Your task to perform on an android device: change notifications settings Image 0: 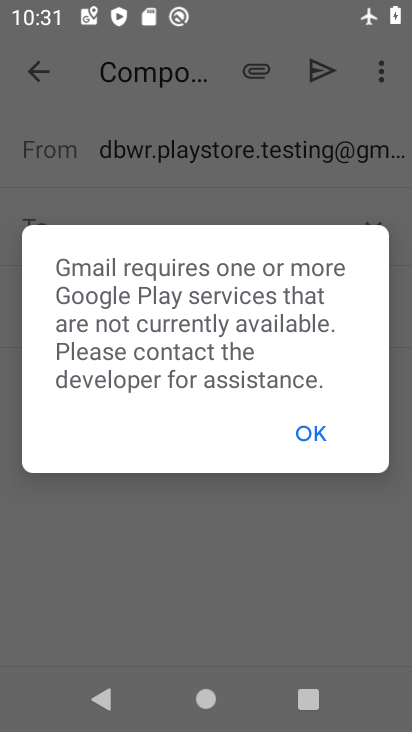
Step 0: press home button
Your task to perform on an android device: change notifications settings Image 1: 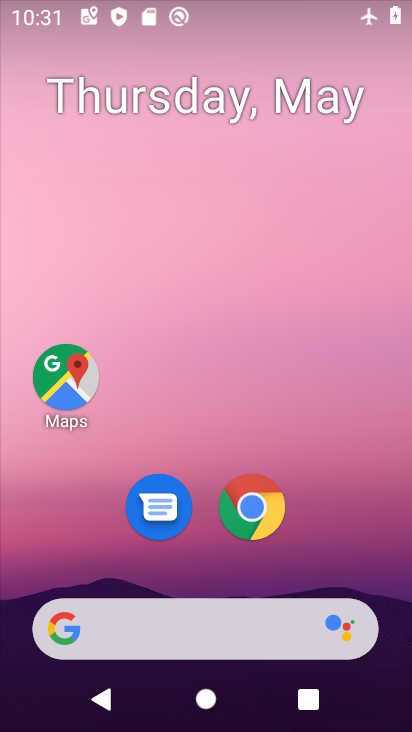
Step 1: drag from (288, 610) to (314, 19)
Your task to perform on an android device: change notifications settings Image 2: 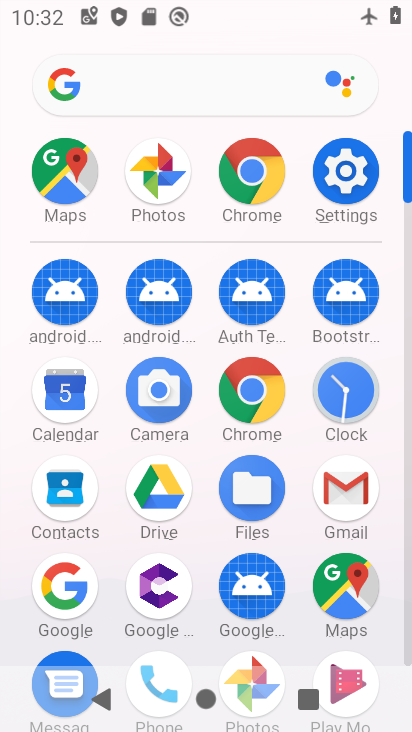
Step 2: click (355, 199)
Your task to perform on an android device: change notifications settings Image 3: 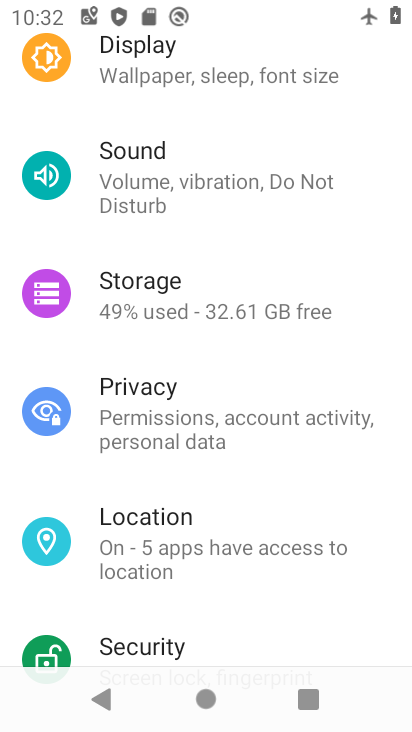
Step 3: drag from (243, 360) to (231, 709)
Your task to perform on an android device: change notifications settings Image 4: 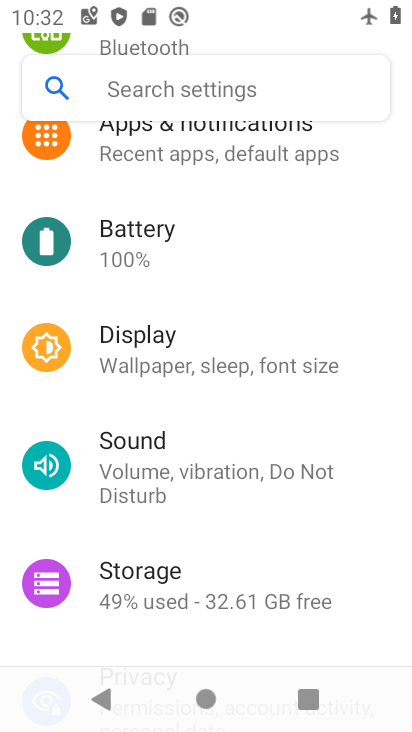
Step 4: drag from (222, 286) to (230, 567)
Your task to perform on an android device: change notifications settings Image 5: 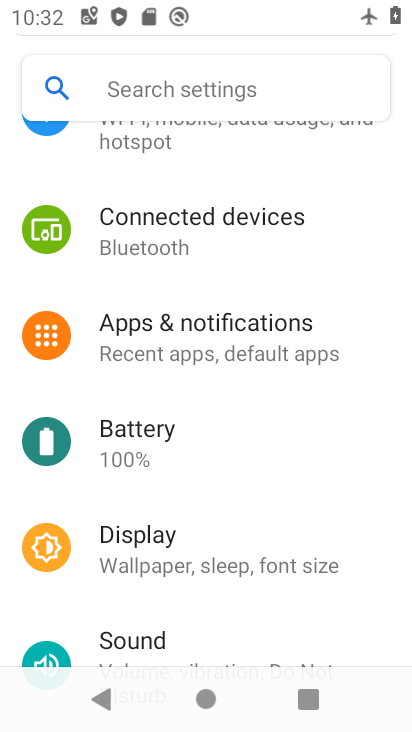
Step 5: click (275, 342)
Your task to perform on an android device: change notifications settings Image 6: 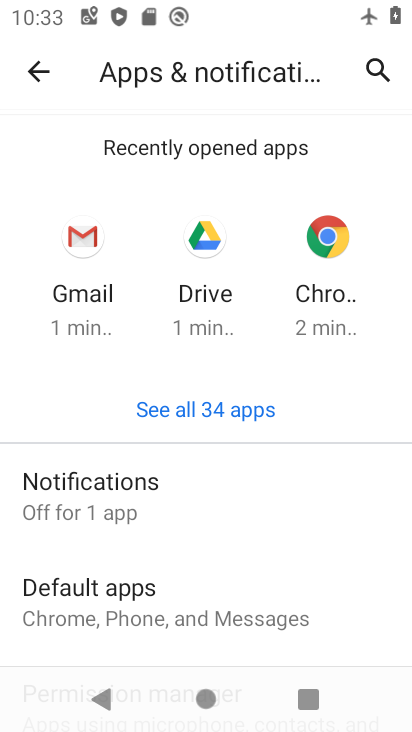
Step 6: click (232, 482)
Your task to perform on an android device: change notifications settings Image 7: 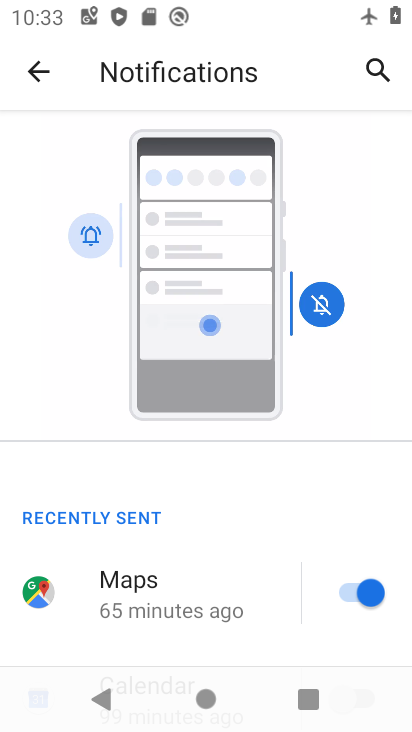
Step 7: click (341, 590)
Your task to perform on an android device: change notifications settings Image 8: 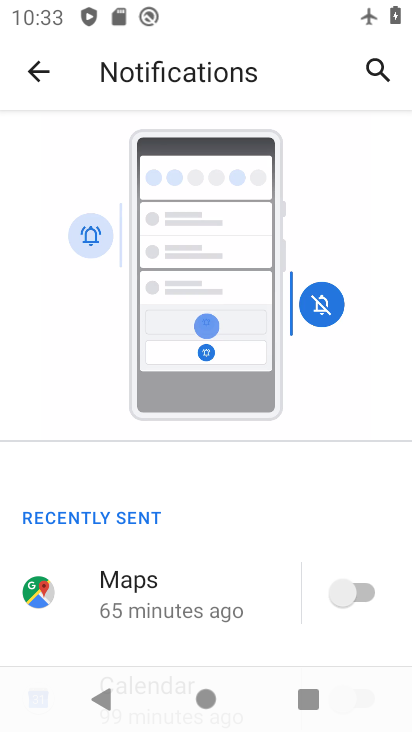
Step 8: task complete